Your task to perform on an android device: Is it going to rain this weekend? Image 0: 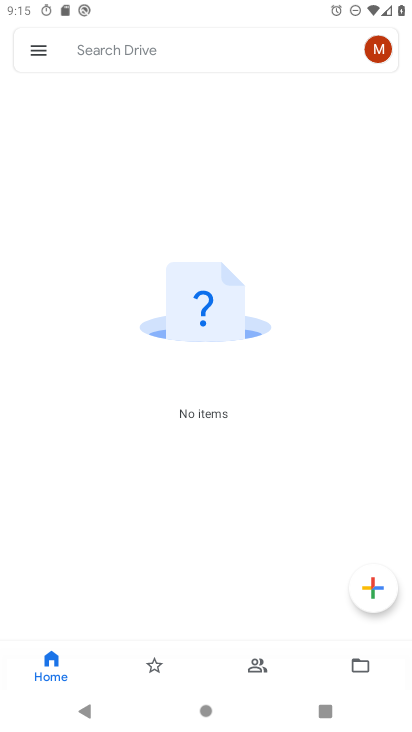
Step 0: press home button
Your task to perform on an android device: Is it going to rain this weekend? Image 1: 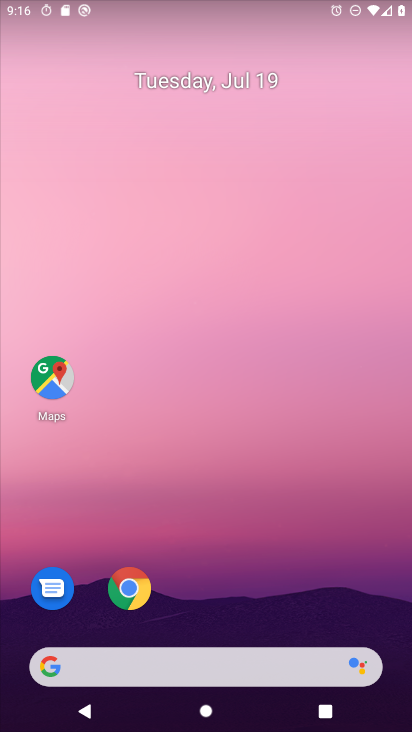
Step 1: click (216, 673)
Your task to perform on an android device: Is it going to rain this weekend? Image 2: 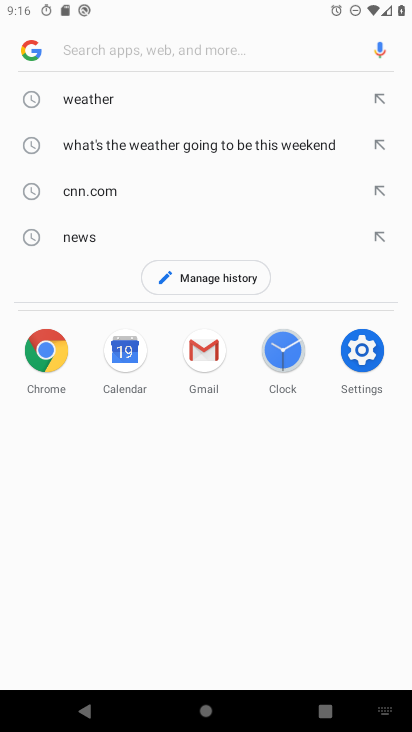
Step 2: click (75, 112)
Your task to perform on an android device: Is it going to rain this weekend? Image 3: 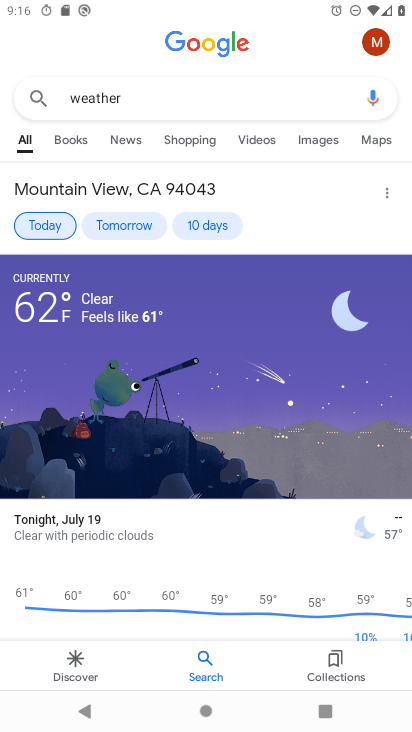
Step 3: click (217, 240)
Your task to perform on an android device: Is it going to rain this weekend? Image 4: 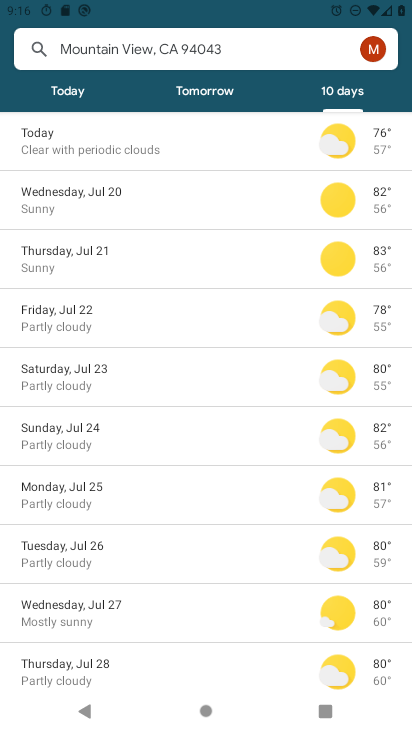
Step 4: task complete